Your task to perform on an android device: Open Reddit.com Image 0: 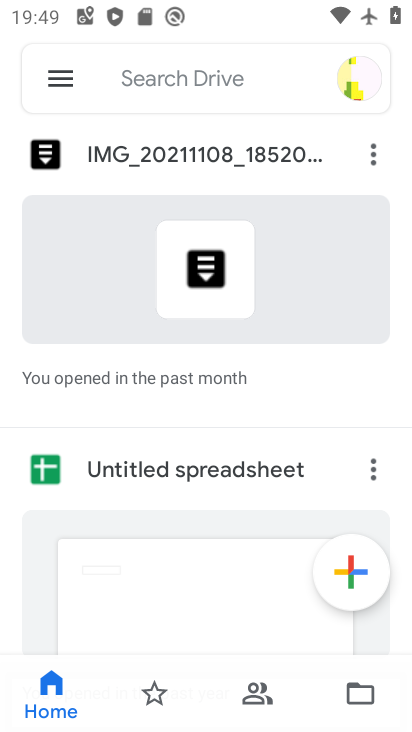
Step 0: press home button
Your task to perform on an android device: Open Reddit.com Image 1: 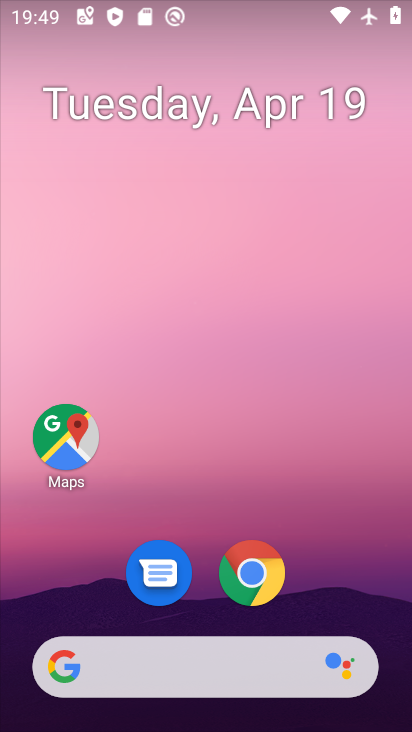
Step 1: click (238, 574)
Your task to perform on an android device: Open Reddit.com Image 2: 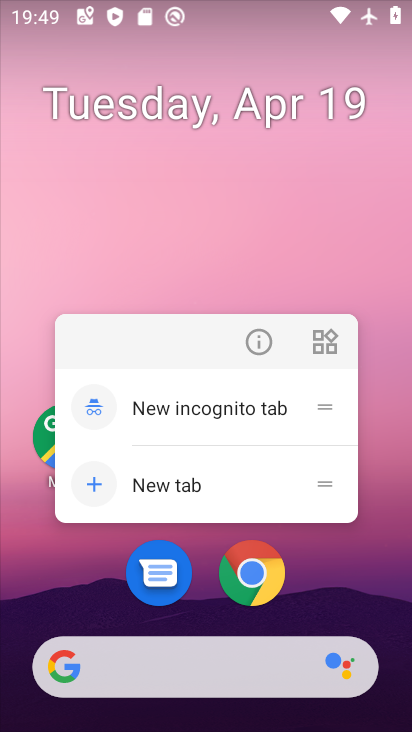
Step 2: click (239, 573)
Your task to perform on an android device: Open Reddit.com Image 3: 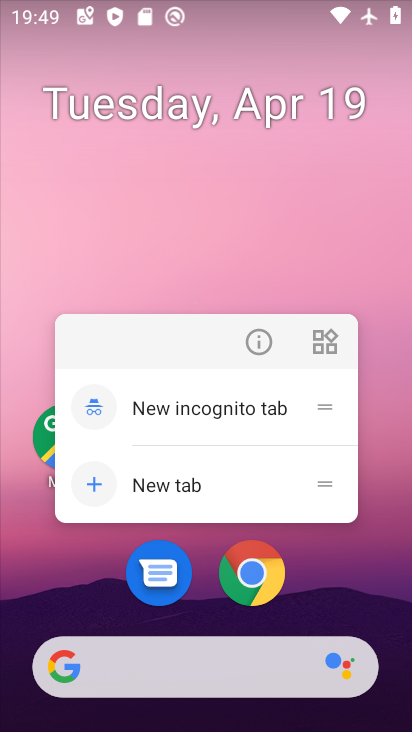
Step 3: click (192, 476)
Your task to perform on an android device: Open Reddit.com Image 4: 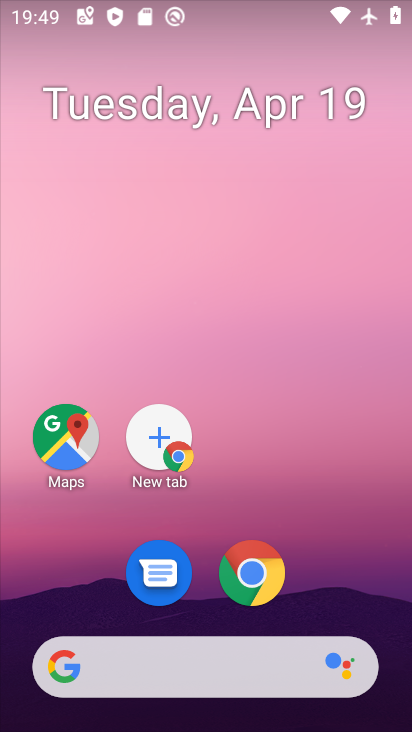
Step 4: click (150, 438)
Your task to perform on an android device: Open Reddit.com Image 5: 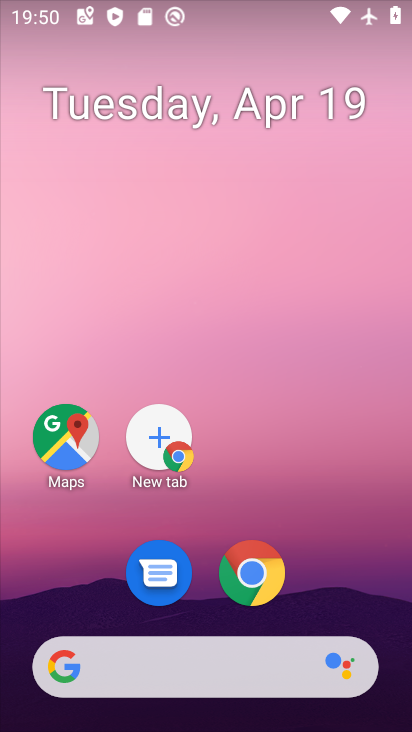
Step 5: click (237, 562)
Your task to perform on an android device: Open Reddit.com Image 6: 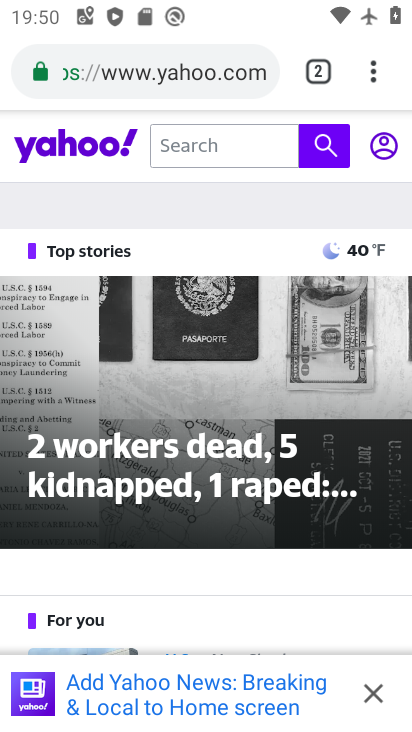
Step 6: click (261, 72)
Your task to perform on an android device: Open Reddit.com Image 7: 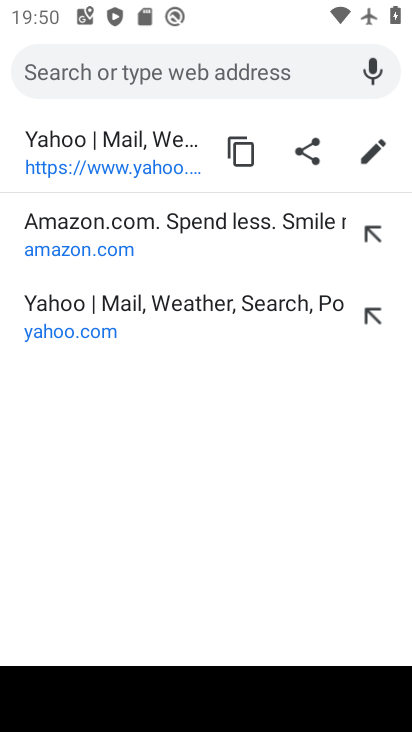
Step 7: type "Reddit.com"
Your task to perform on an android device: Open Reddit.com Image 8: 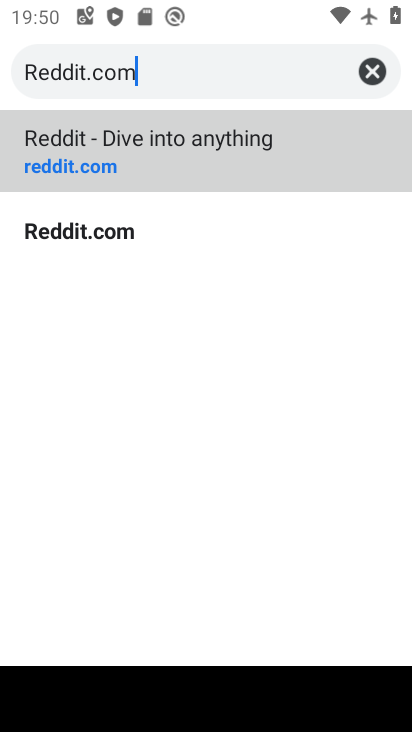
Step 8: click (80, 159)
Your task to perform on an android device: Open Reddit.com Image 9: 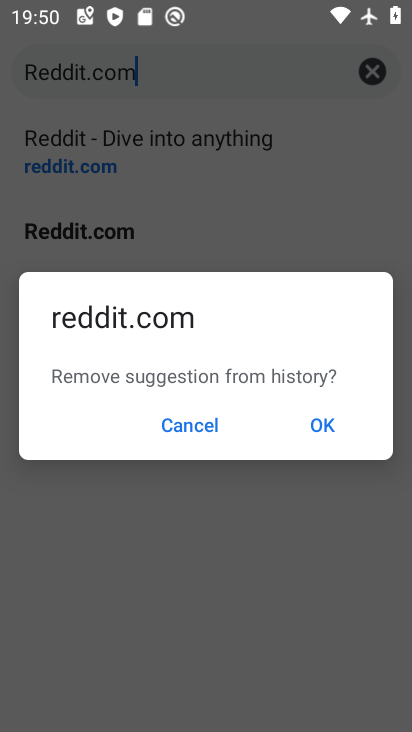
Step 9: click (319, 420)
Your task to perform on an android device: Open Reddit.com Image 10: 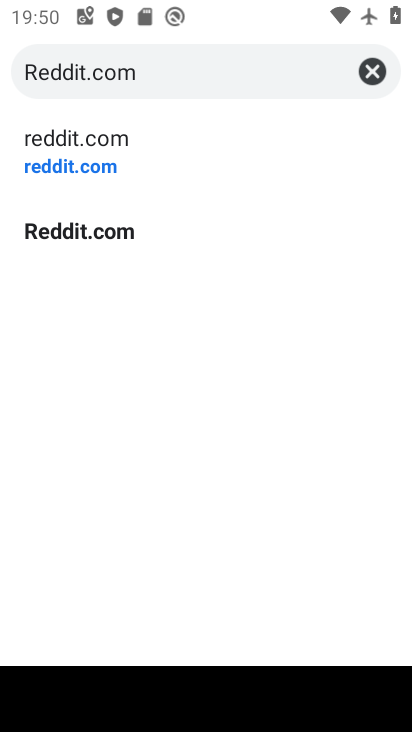
Step 10: click (57, 150)
Your task to perform on an android device: Open Reddit.com Image 11: 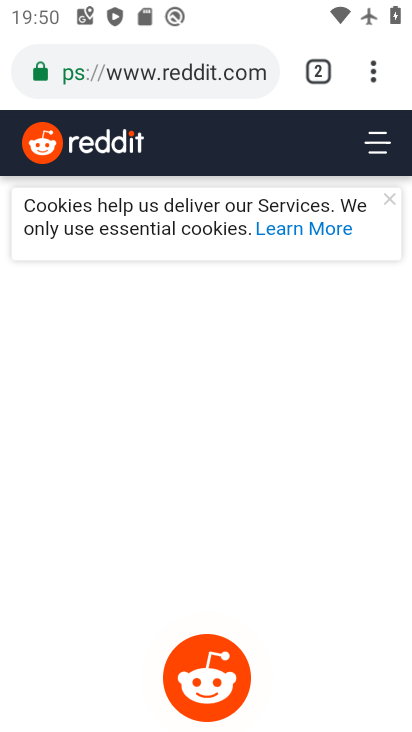
Step 11: task complete